Your task to perform on an android device: Go to sound settings Image 0: 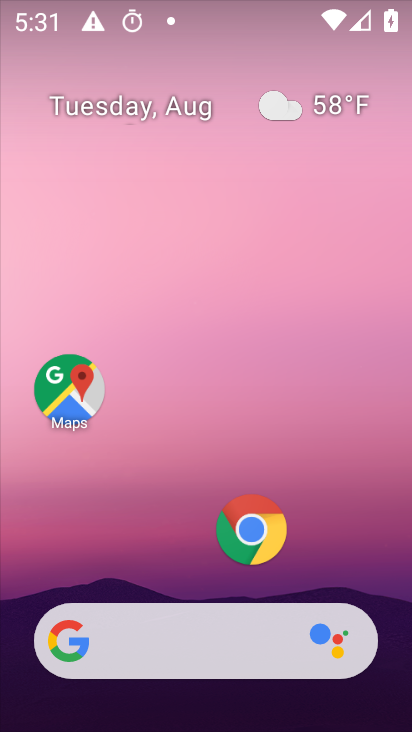
Step 0: drag from (195, 471) to (213, 257)
Your task to perform on an android device: Go to sound settings Image 1: 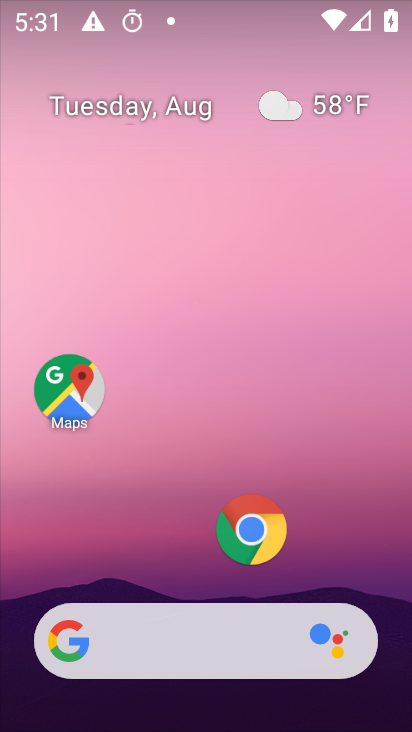
Step 1: drag from (193, 550) to (224, 142)
Your task to perform on an android device: Go to sound settings Image 2: 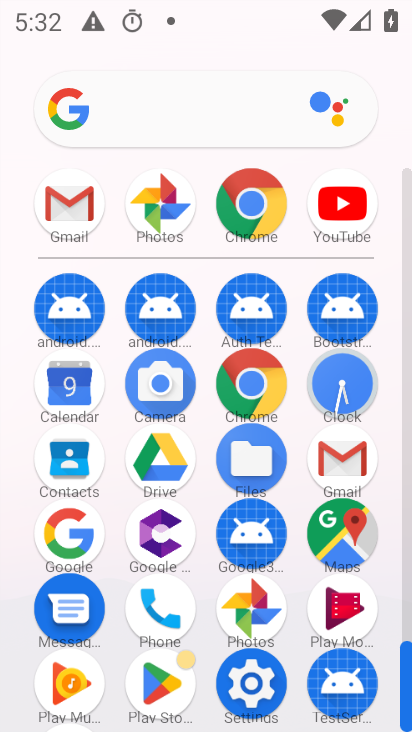
Step 2: click (230, 665)
Your task to perform on an android device: Go to sound settings Image 3: 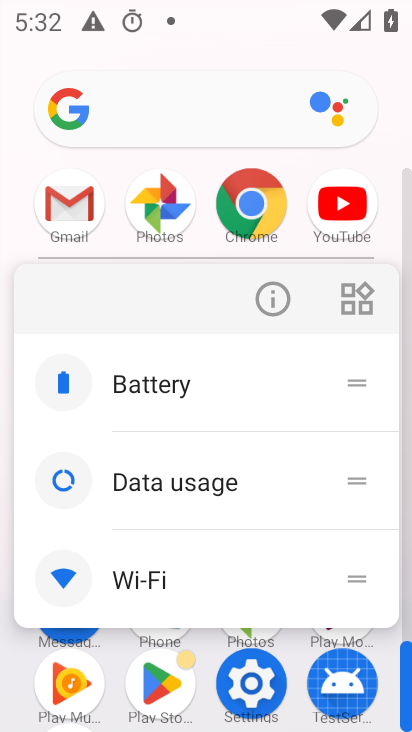
Step 3: click (250, 678)
Your task to perform on an android device: Go to sound settings Image 4: 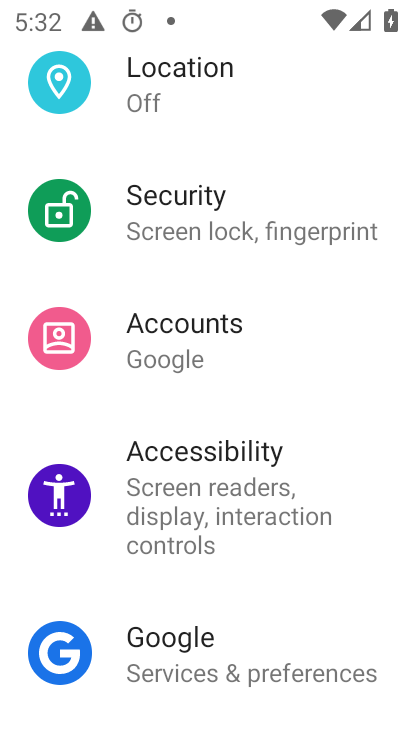
Step 4: drag from (226, 211) to (231, 578)
Your task to perform on an android device: Go to sound settings Image 5: 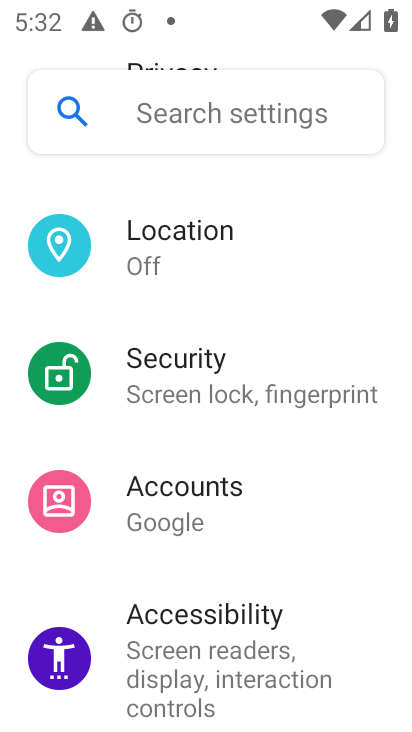
Step 5: drag from (241, 341) to (252, 594)
Your task to perform on an android device: Go to sound settings Image 6: 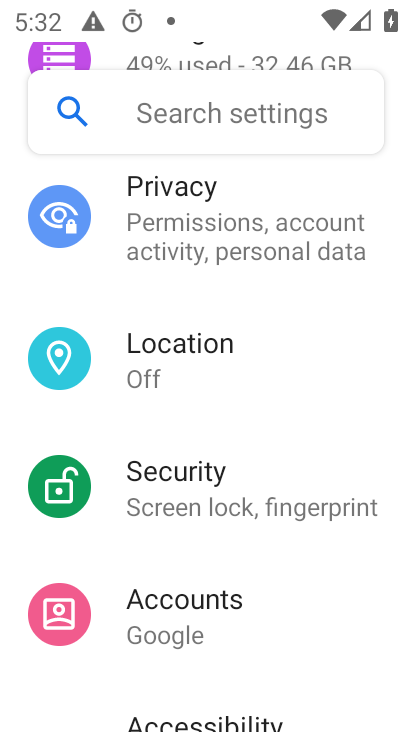
Step 6: drag from (268, 305) to (270, 607)
Your task to perform on an android device: Go to sound settings Image 7: 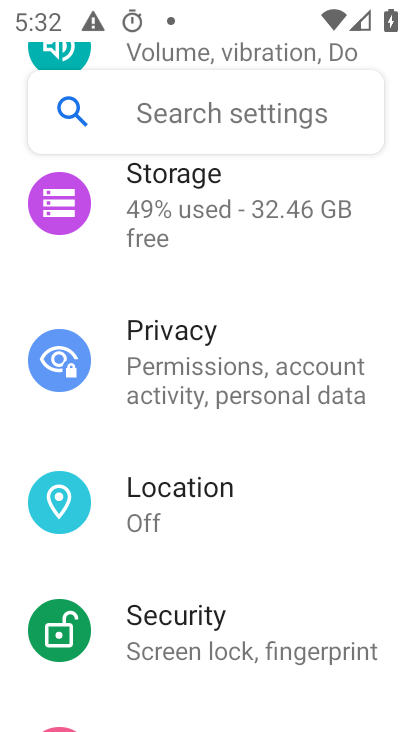
Step 7: drag from (266, 251) to (274, 516)
Your task to perform on an android device: Go to sound settings Image 8: 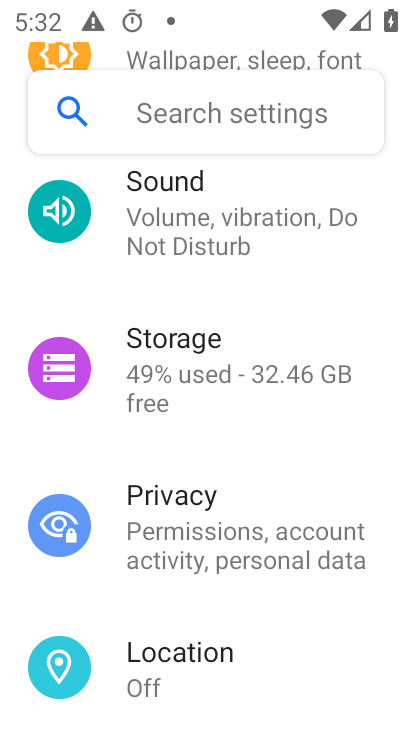
Step 8: click (214, 239)
Your task to perform on an android device: Go to sound settings Image 9: 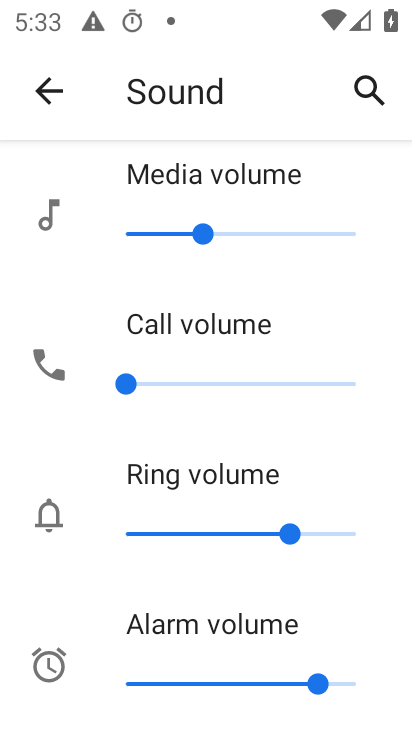
Step 9: task complete